Your task to perform on an android device: What's the weather? Image 0: 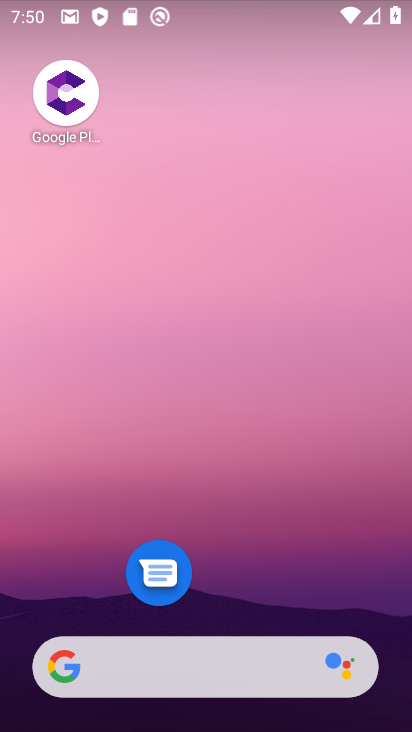
Step 0: drag from (324, 621) to (280, 96)
Your task to perform on an android device: What's the weather? Image 1: 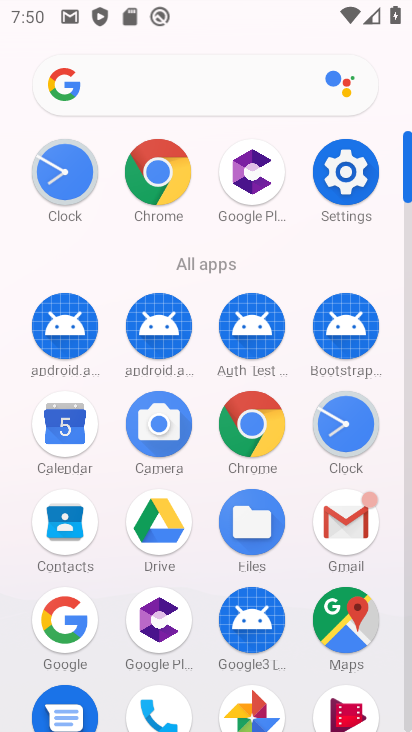
Step 1: click (68, 622)
Your task to perform on an android device: What's the weather? Image 2: 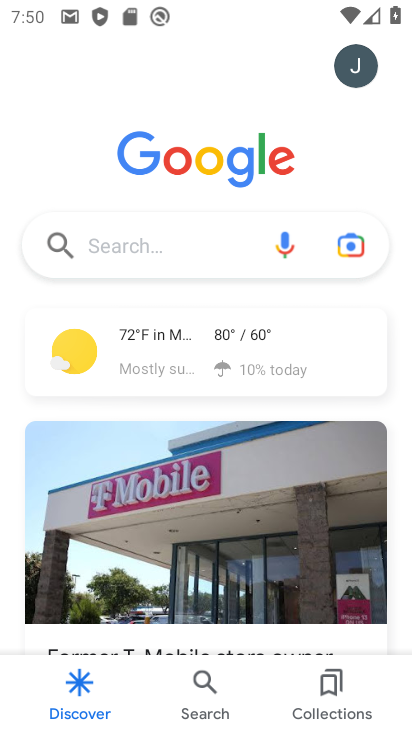
Step 2: click (199, 352)
Your task to perform on an android device: What's the weather? Image 3: 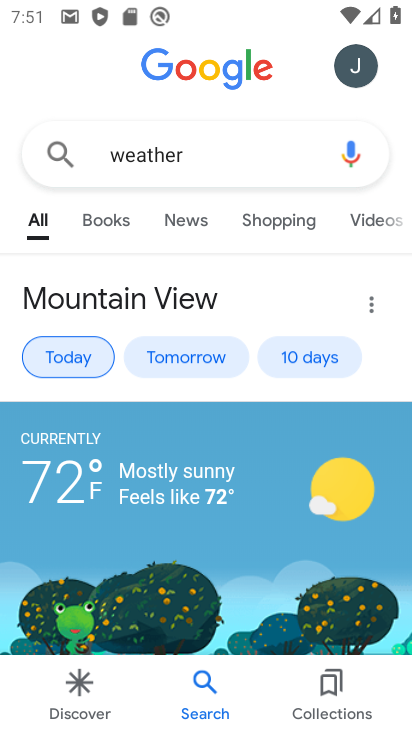
Step 3: task complete